Your task to perform on an android device: Show me popular videos on Youtube Image 0: 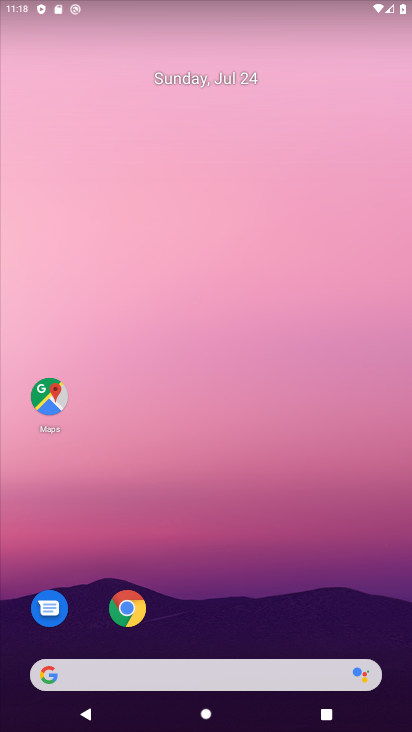
Step 0: drag from (284, 641) to (276, 0)
Your task to perform on an android device: Show me popular videos on Youtube Image 1: 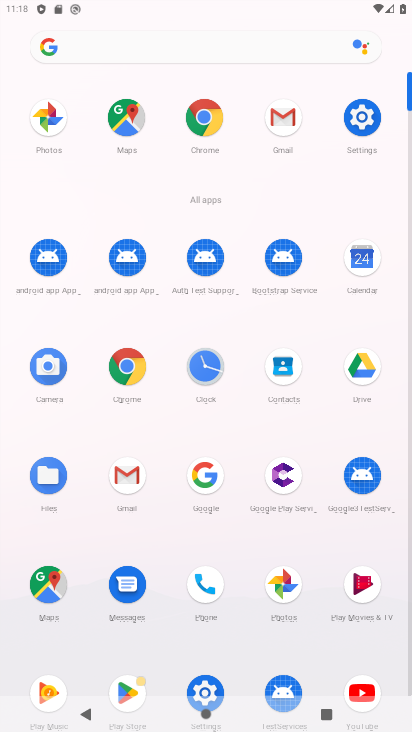
Step 1: click (361, 684)
Your task to perform on an android device: Show me popular videos on Youtube Image 2: 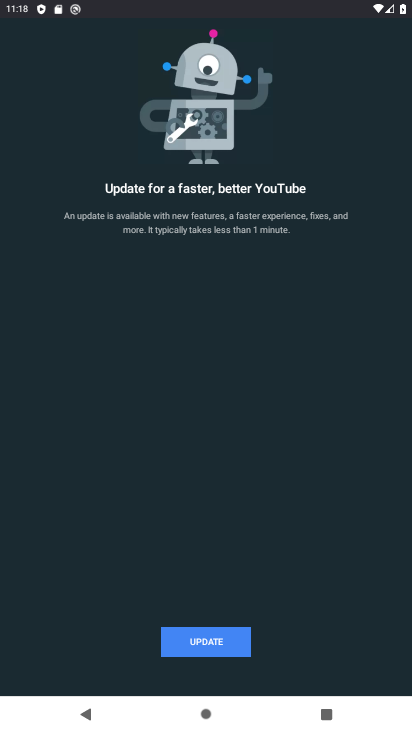
Step 2: click (188, 637)
Your task to perform on an android device: Show me popular videos on Youtube Image 3: 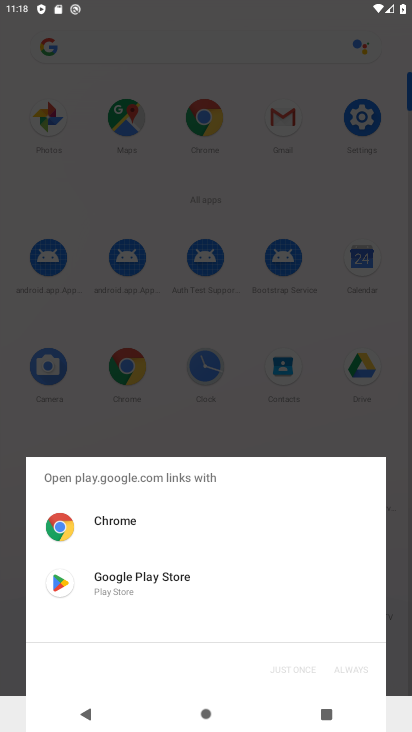
Step 3: click (137, 582)
Your task to perform on an android device: Show me popular videos on Youtube Image 4: 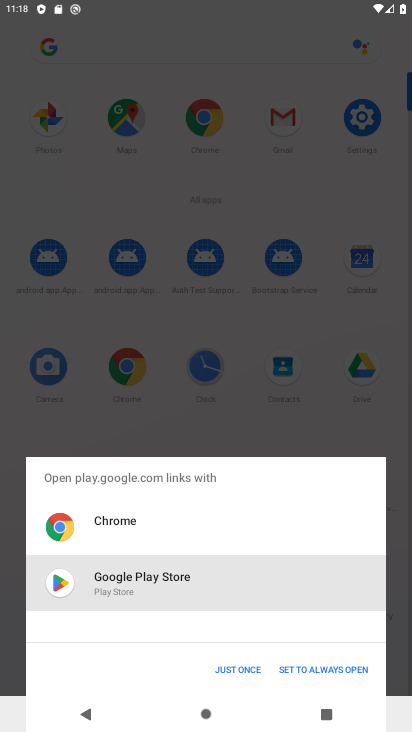
Step 4: click (228, 673)
Your task to perform on an android device: Show me popular videos on Youtube Image 5: 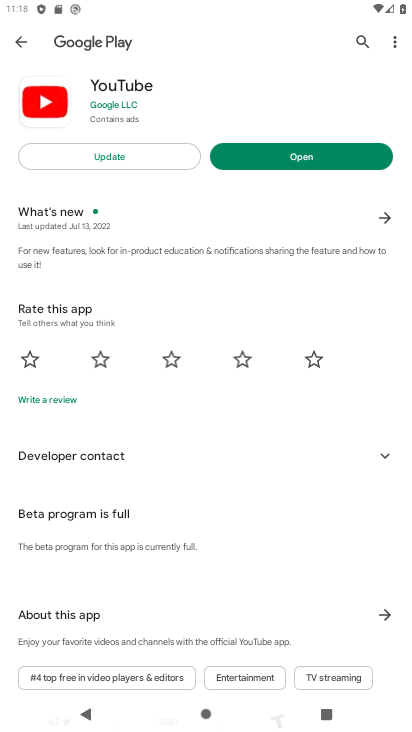
Step 5: click (135, 152)
Your task to perform on an android device: Show me popular videos on Youtube Image 6: 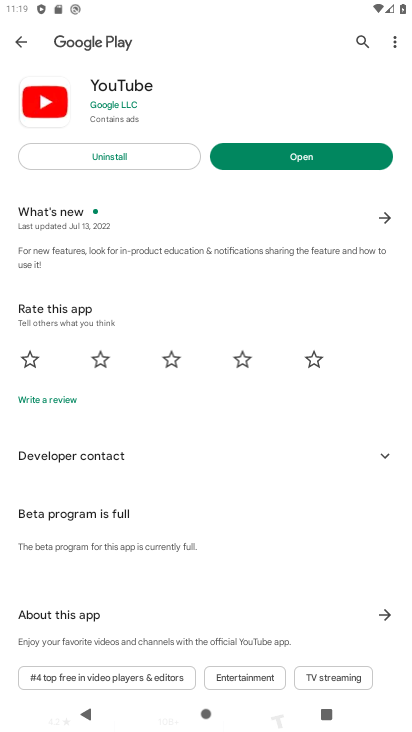
Step 6: click (231, 154)
Your task to perform on an android device: Show me popular videos on Youtube Image 7: 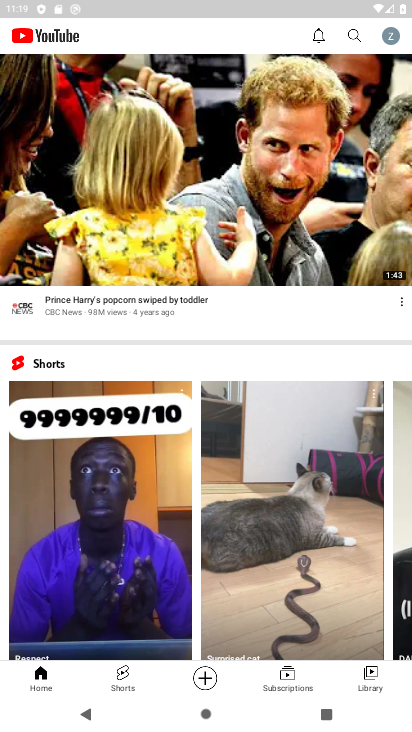
Step 7: task complete